Your task to perform on an android device: What's the US dollar exchange rateagainst the Swiss Franc? Image 0: 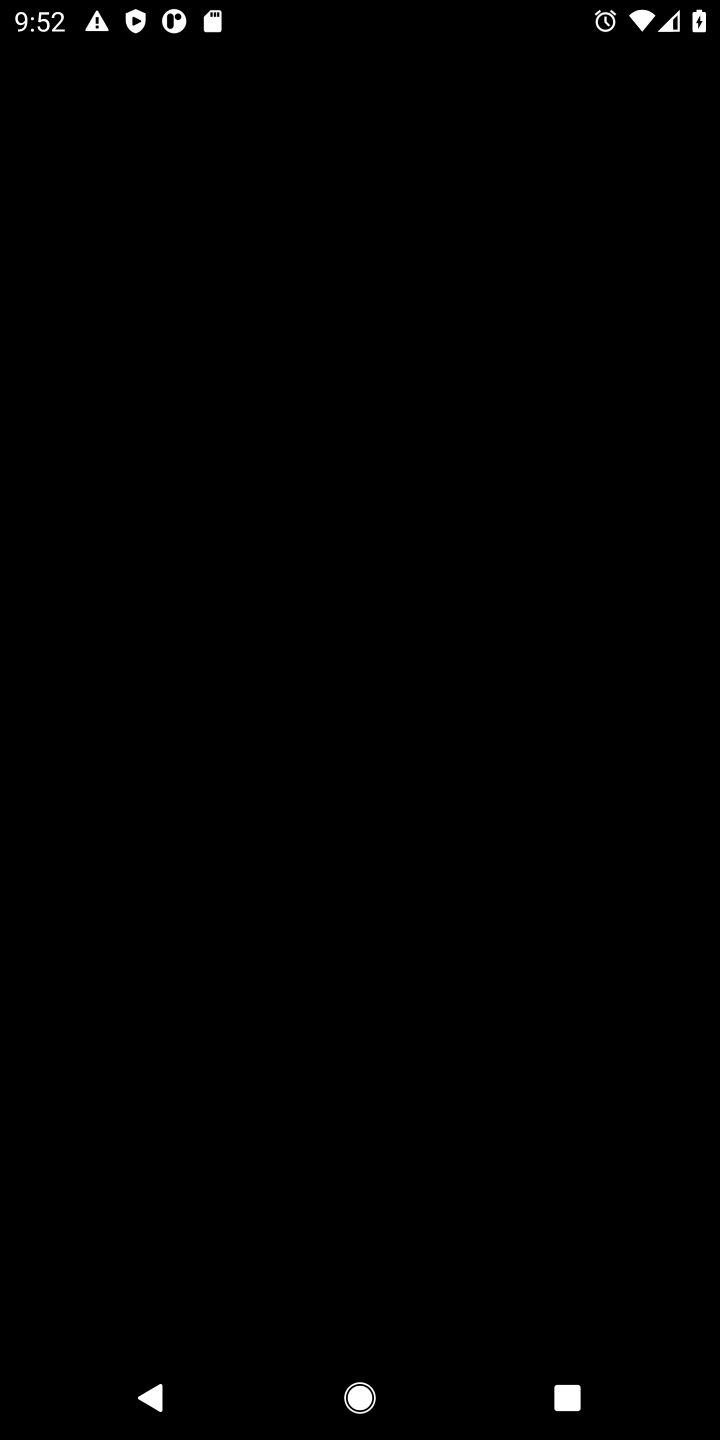
Step 0: press home button
Your task to perform on an android device: What's the US dollar exchange rateagainst the Swiss Franc? Image 1: 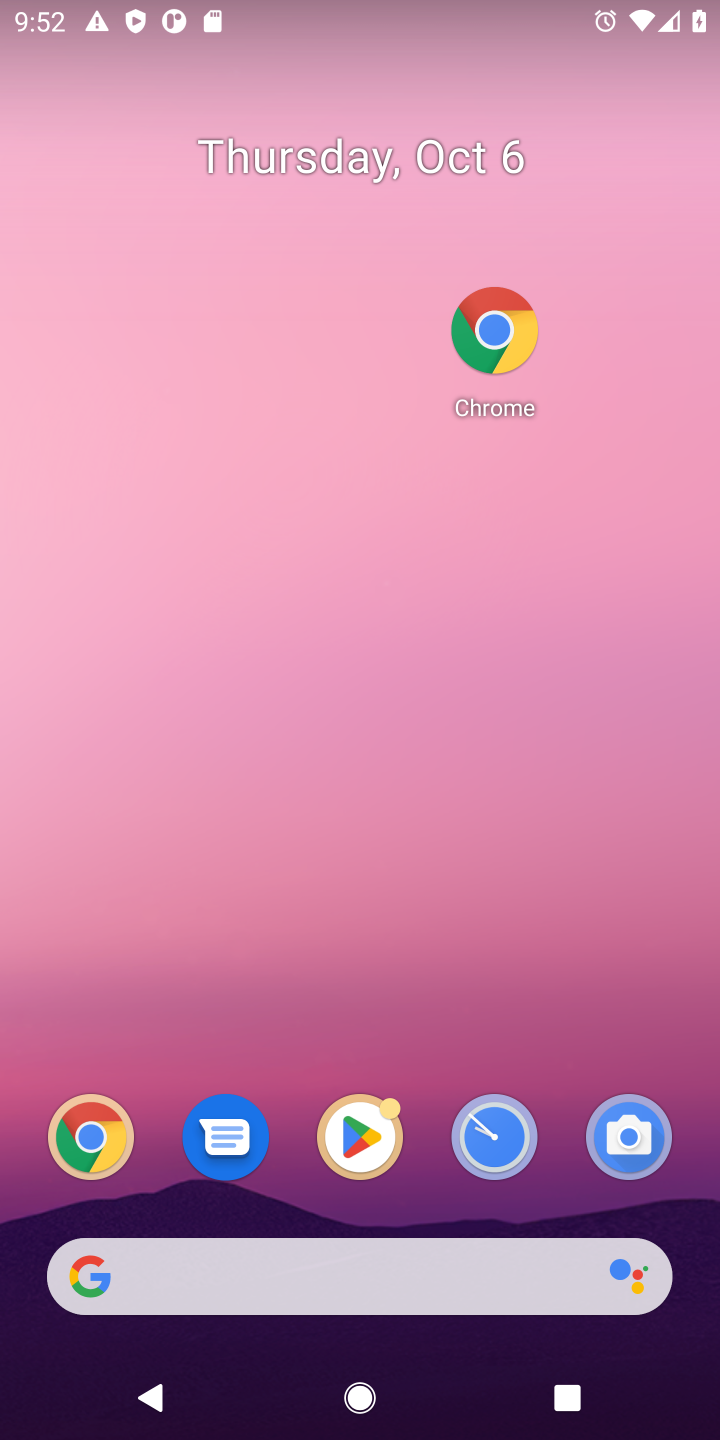
Step 1: click (104, 1137)
Your task to perform on an android device: What's the US dollar exchange rateagainst the Swiss Franc? Image 2: 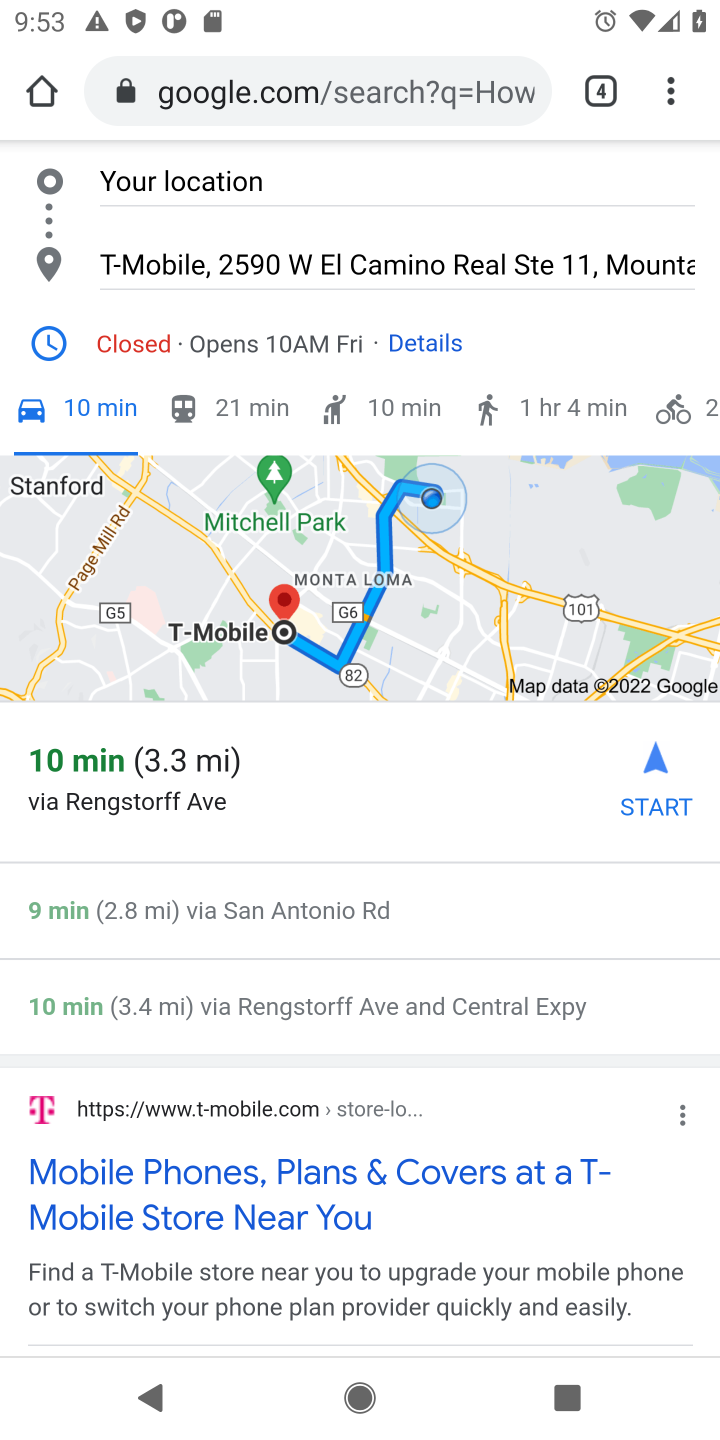
Step 2: click (345, 74)
Your task to perform on an android device: What's the US dollar exchange rateagainst the Swiss Franc? Image 3: 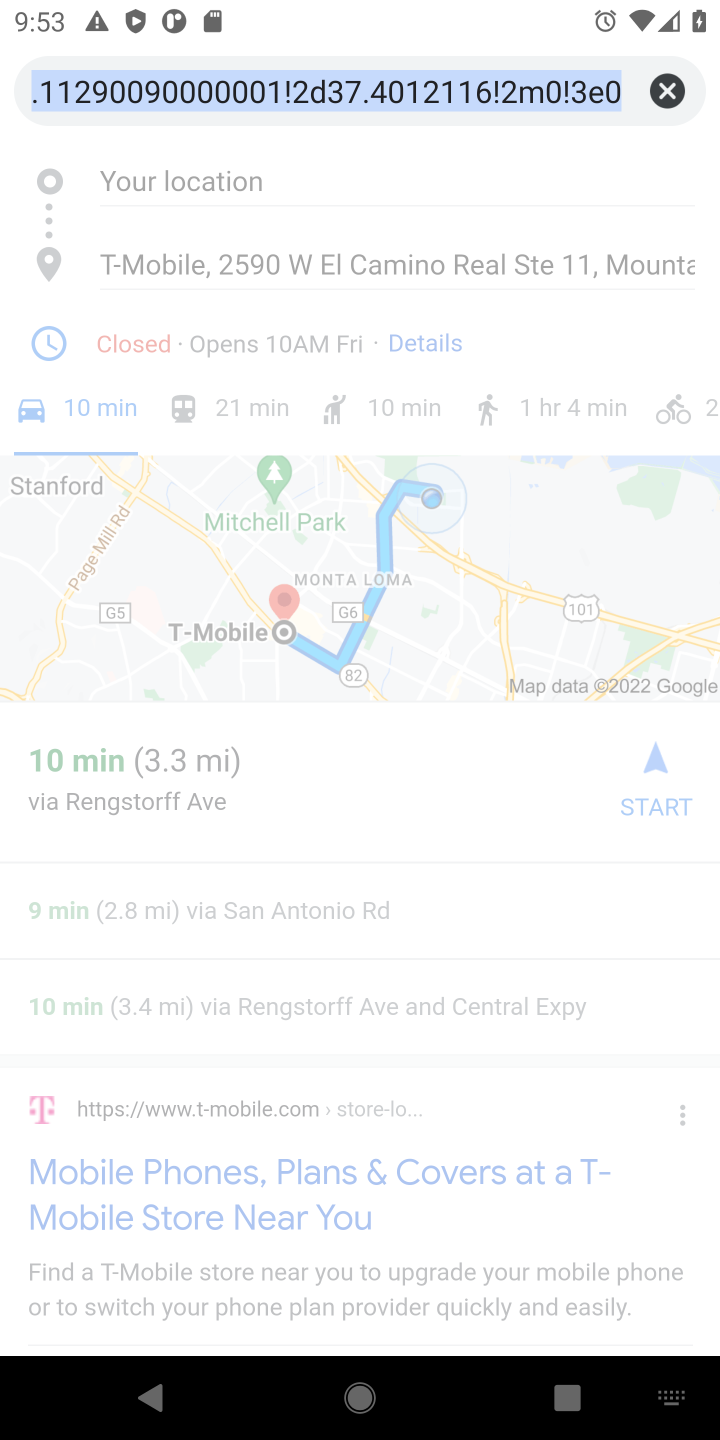
Step 3: click (653, 92)
Your task to perform on an android device: What's the US dollar exchange rateagainst the Swiss Franc? Image 4: 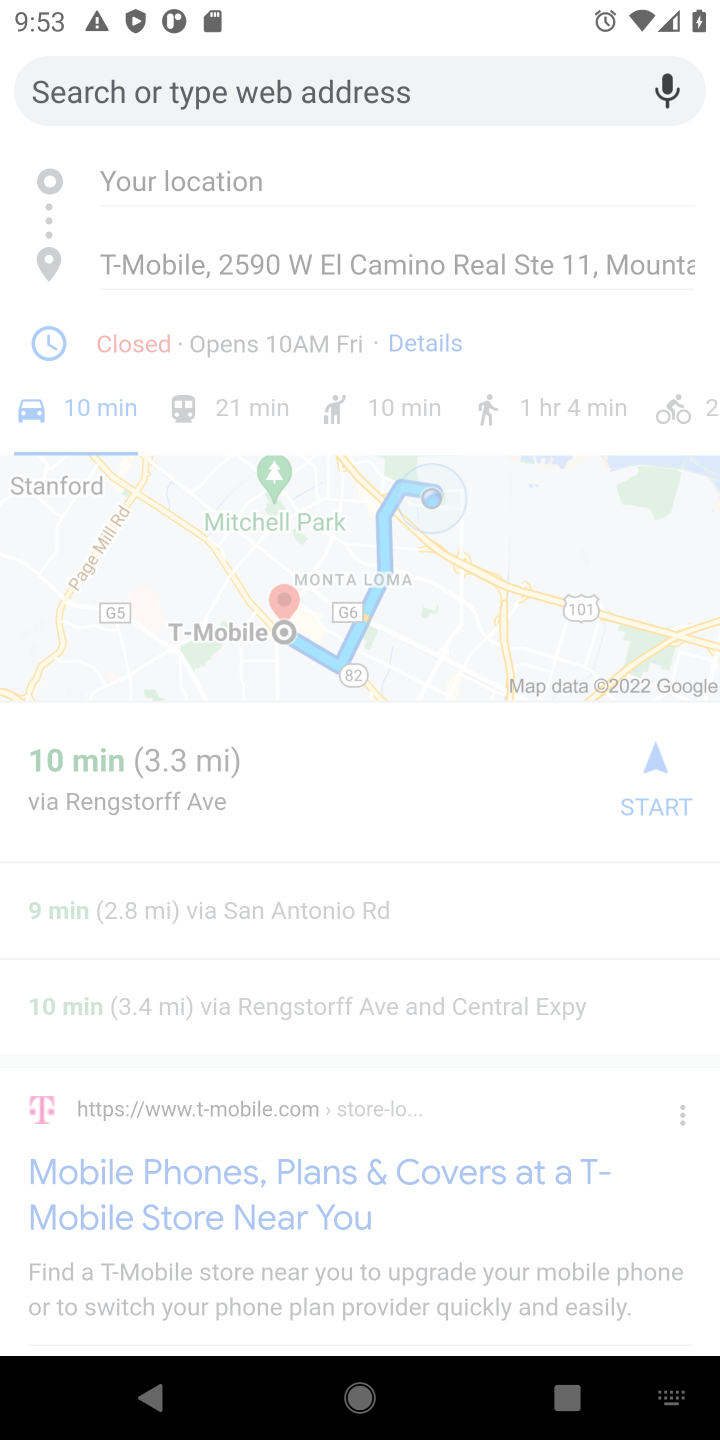
Step 4: type "US dollar exchange rateagainst the Swiss Franc"
Your task to perform on an android device: What's the US dollar exchange rateagainst the Swiss Franc? Image 5: 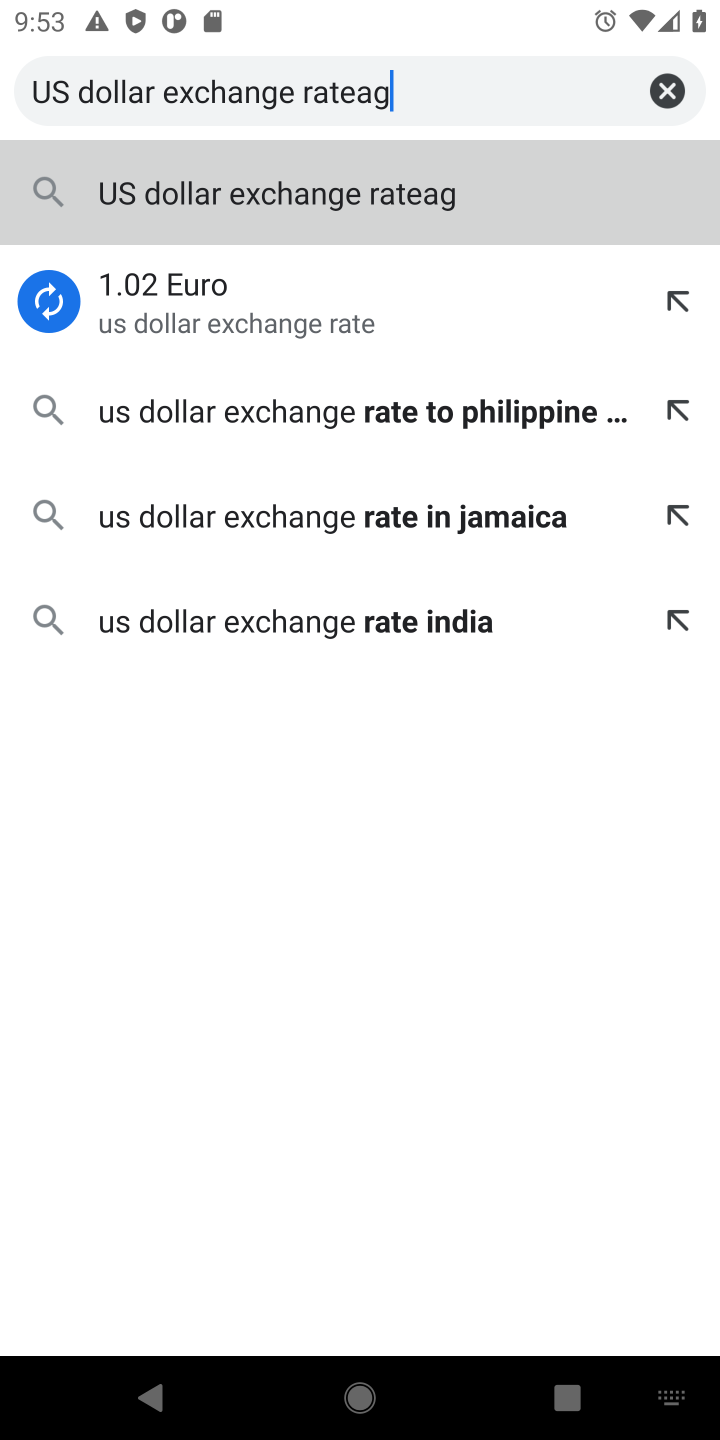
Step 5: click (403, 84)
Your task to perform on an android device: What's the US dollar exchange rateagainst the Swiss Franc? Image 6: 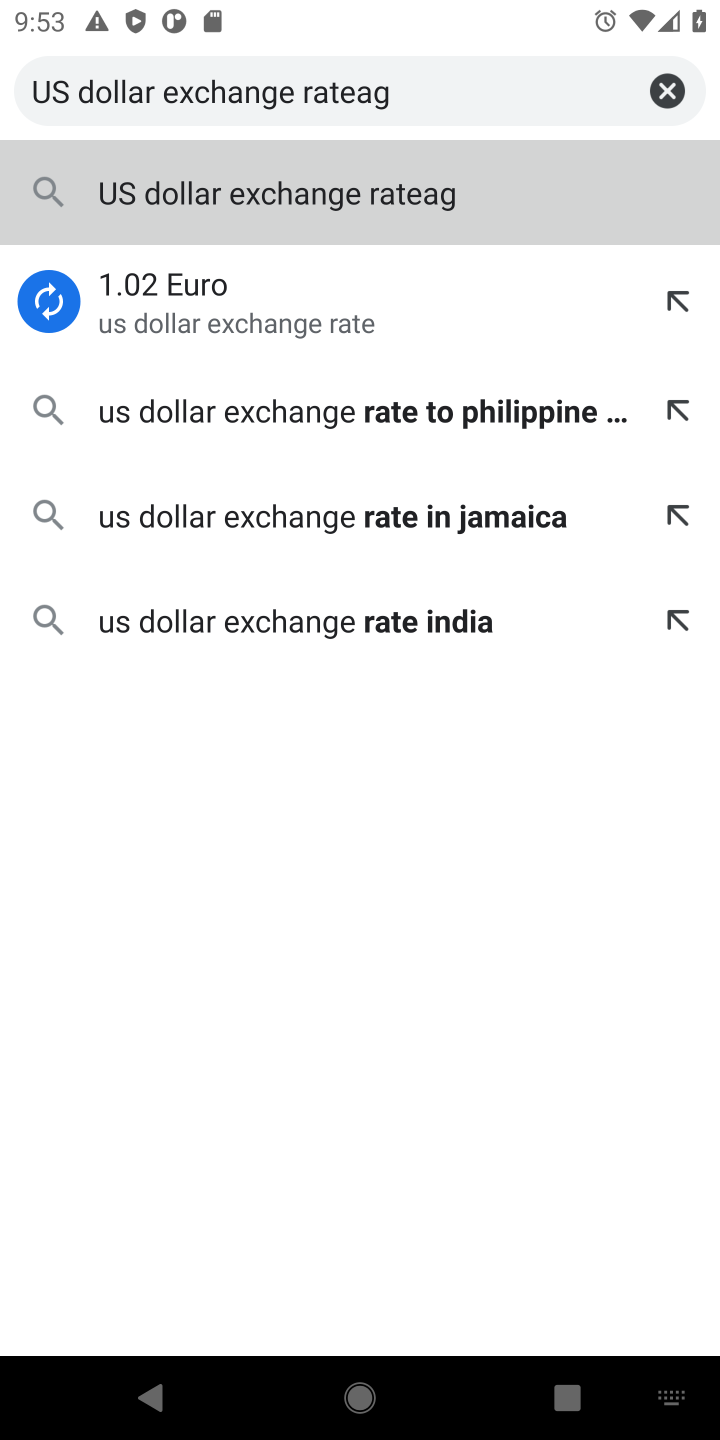
Step 6: type "ainst the swiss franc"
Your task to perform on an android device: What's the US dollar exchange rateagainst the Swiss Franc? Image 7: 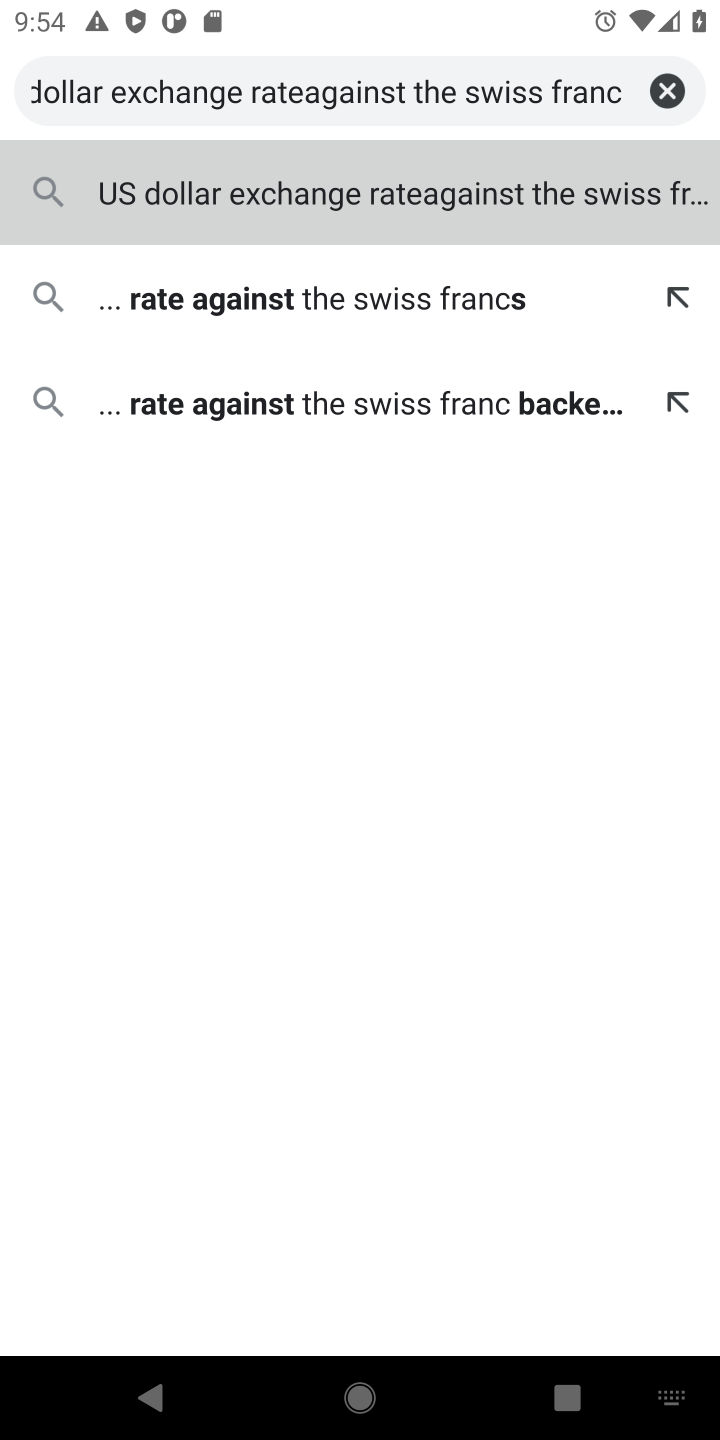
Step 7: click (438, 220)
Your task to perform on an android device: What's the US dollar exchange rateagainst the Swiss Franc? Image 8: 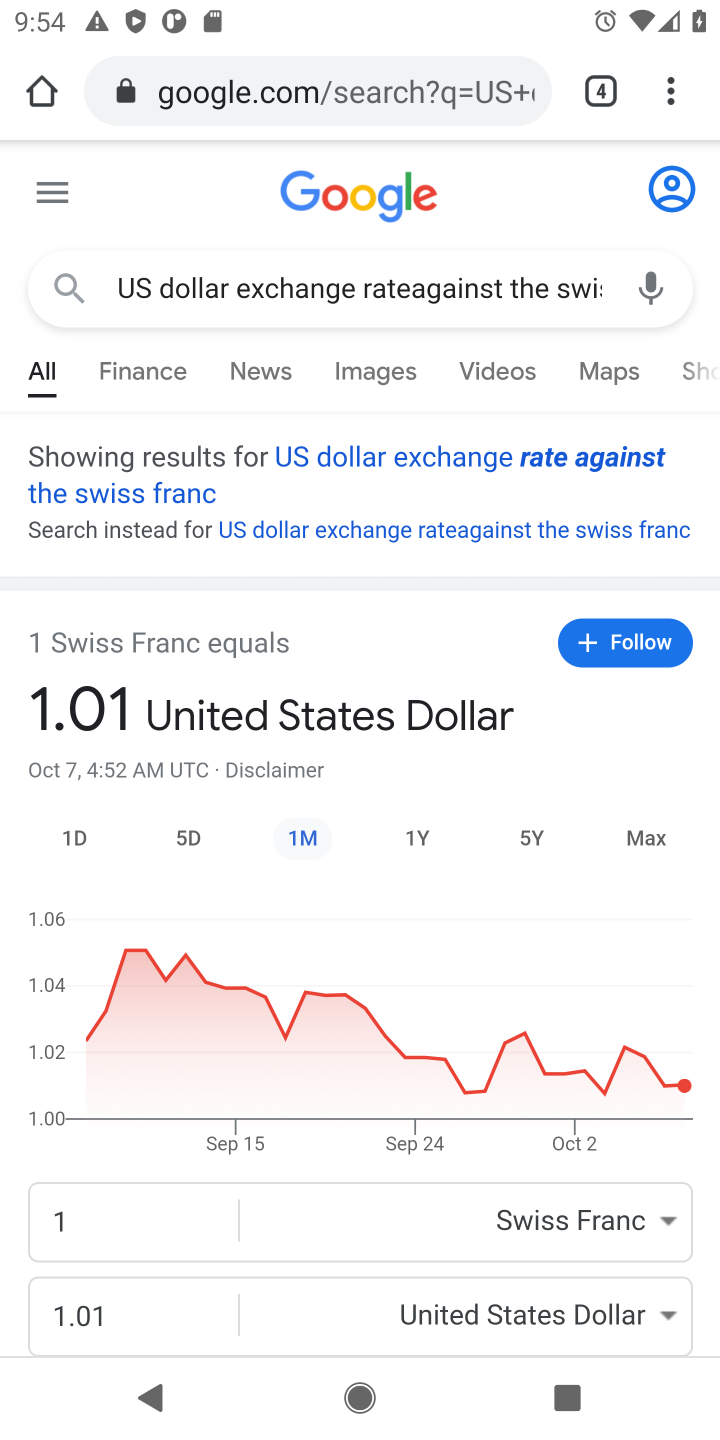
Step 8: task complete